Your task to perform on an android device: turn on the 12-hour format for clock Image 0: 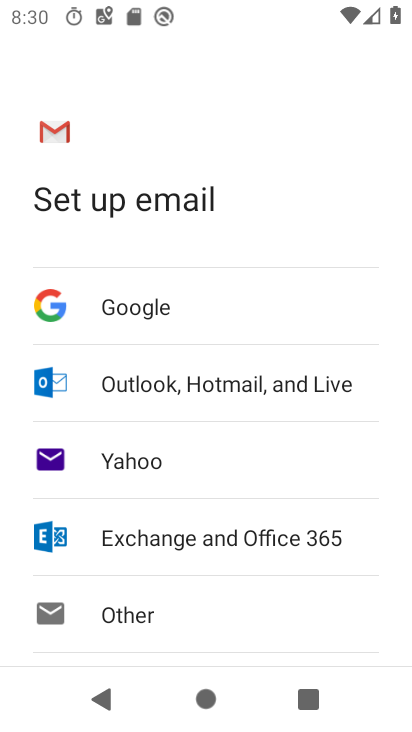
Step 0: press home button
Your task to perform on an android device: turn on the 12-hour format for clock Image 1: 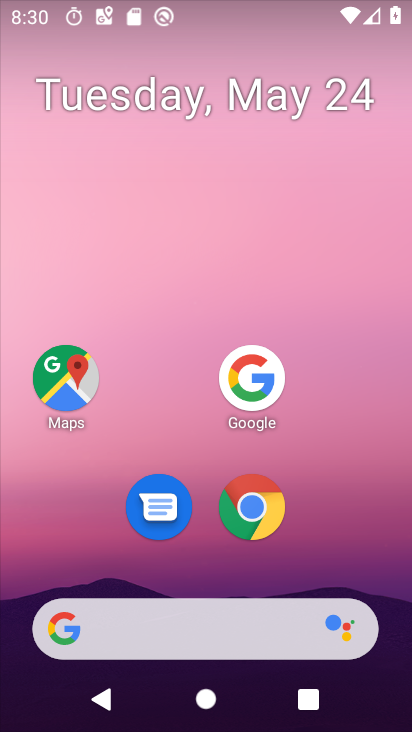
Step 1: drag from (171, 627) to (308, 84)
Your task to perform on an android device: turn on the 12-hour format for clock Image 2: 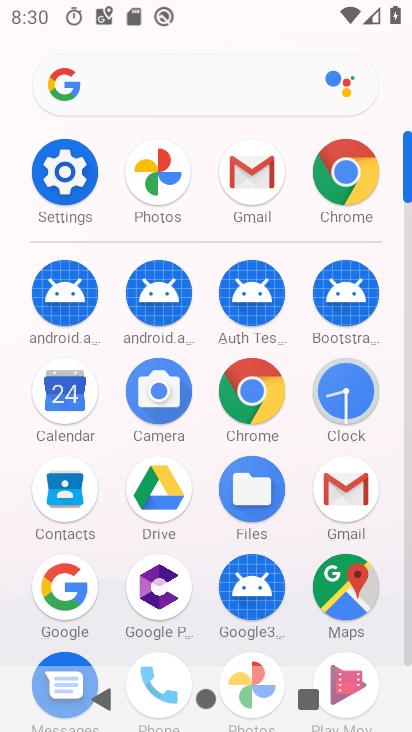
Step 2: click (350, 388)
Your task to perform on an android device: turn on the 12-hour format for clock Image 3: 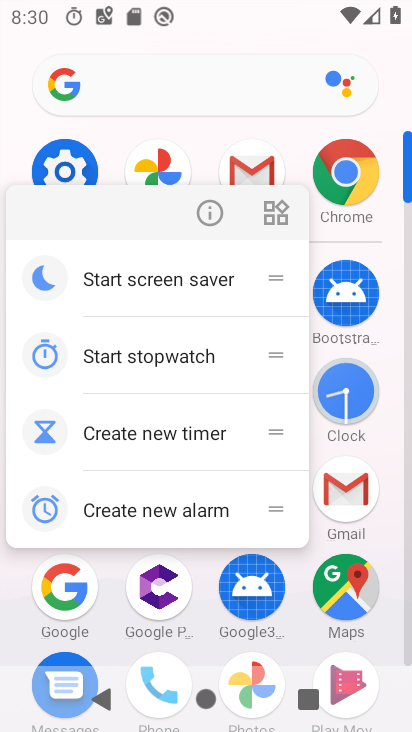
Step 3: click (346, 409)
Your task to perform on an android device: turn on the 12-hour format for clock Image 4: 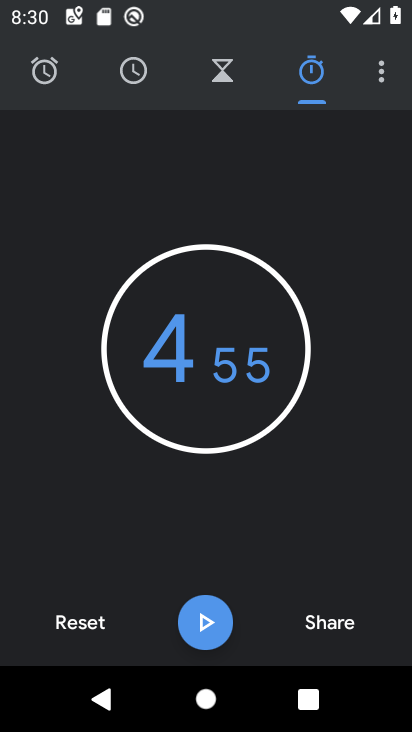
Step 4: click (382, 72)
Your task to perform on an android device: turn on the 12-hour format for clock Image 5: 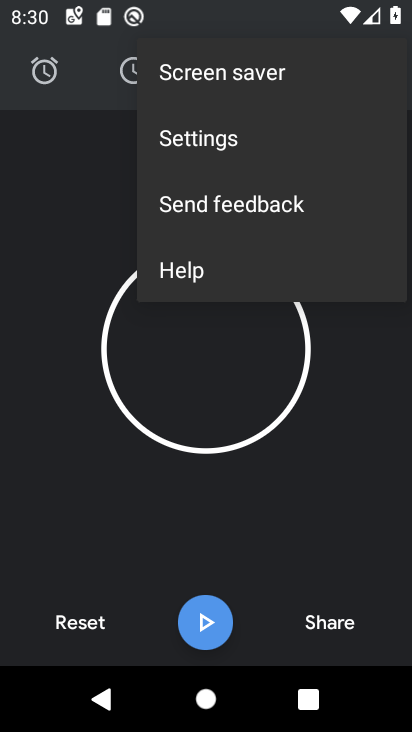
Step 5: click (248, 143)
Your task to perform on an android device: turn on the 12-hour format for clock Image 6: 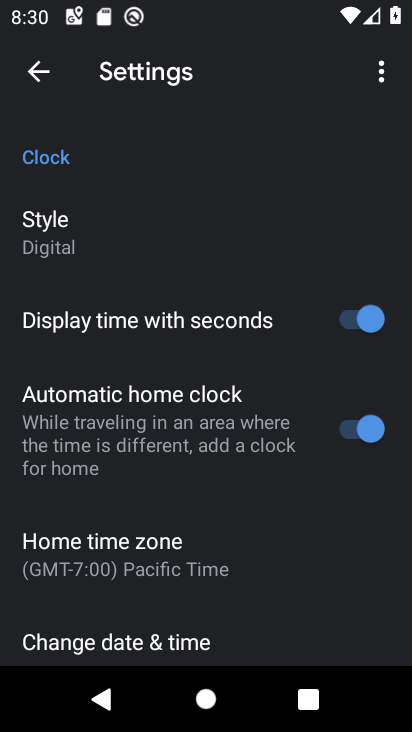
Step 6: drag from (242, 603) to (345, 112)
Your task to perform on an android device: turn on the 12-hour format for clock Image 7: 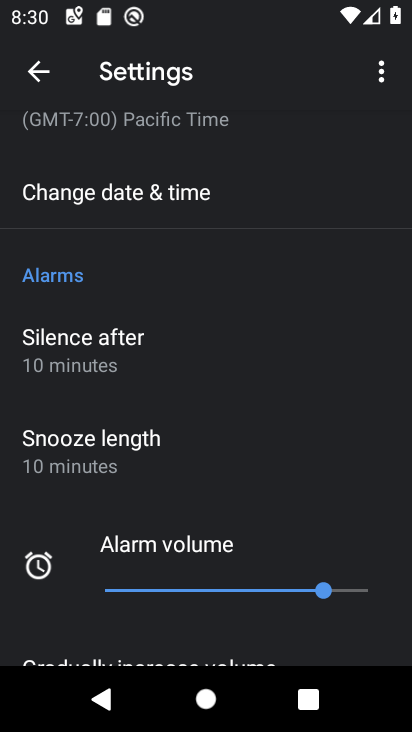
Step 7: drag from (217, 496) to (243, 553)
Your task to perform on an android device: turn on the 12-hour format for clock Image 8: 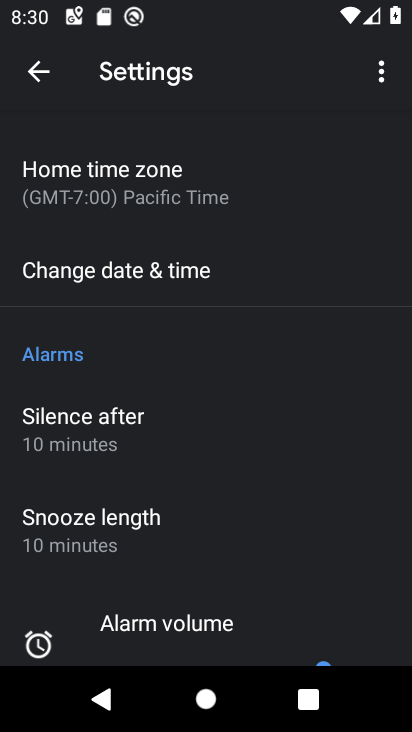
Step 8: click (162, 272)
Your task to perform on an android device: turn on the 12-hour format for clock Image 9: 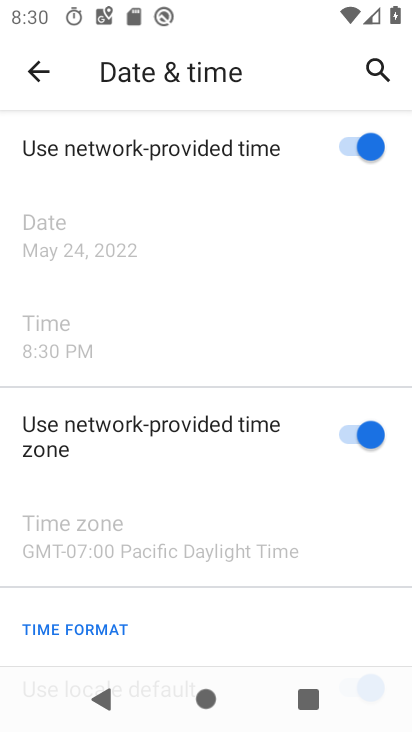
Step 9: task complete